Your task to perform on an android device: Set the phone to "Do not disturb". Image 0: 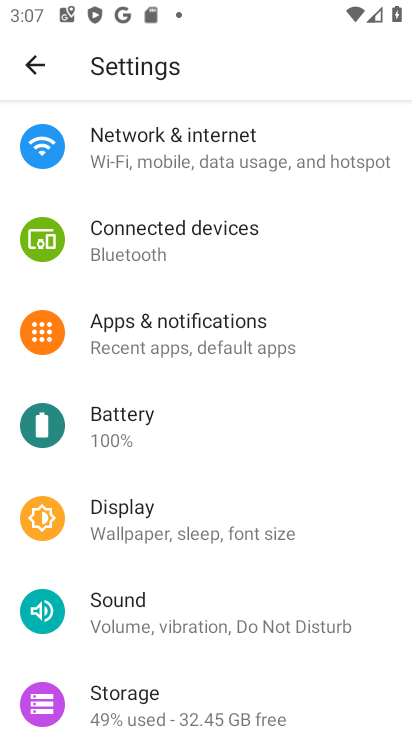
Step 0: click (256, 608)
Your task to perform on an android device: Set the phone to "Do not disturb". Image 1: 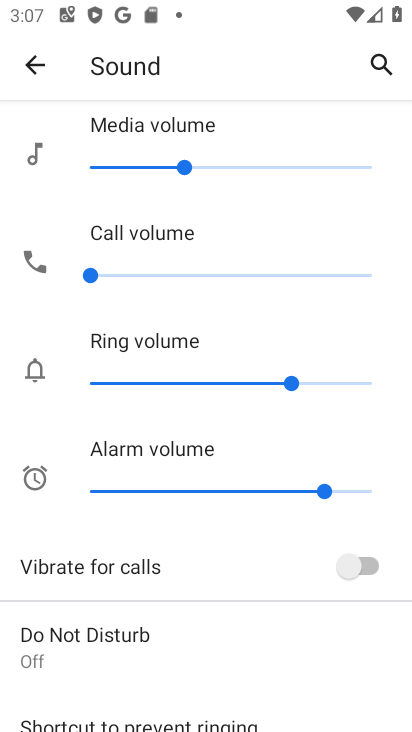
Step 1: drag from (252, 647) to (246, 127)
Your task to perform on an android device: Set the phone to "Do not disturb". Image 2: 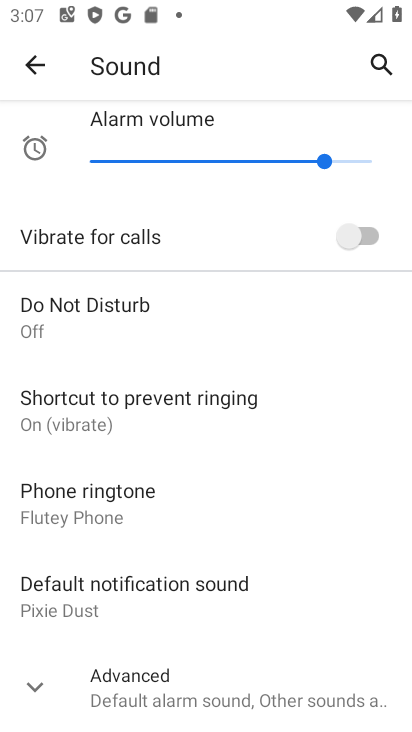
Step 2: click (66, 664)
Your task to perform on an android device: Set the phone to "Do not disturb". Image 3: 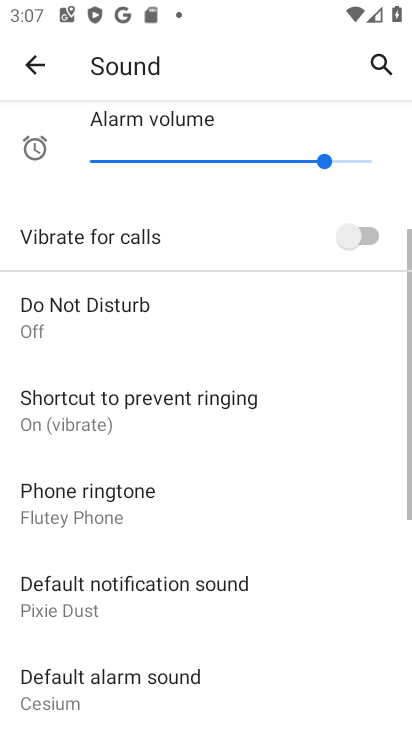
Step 3: click (160, 320)
Your task to perform on an android device: Set the phone to "Do not disturb". Image 4: 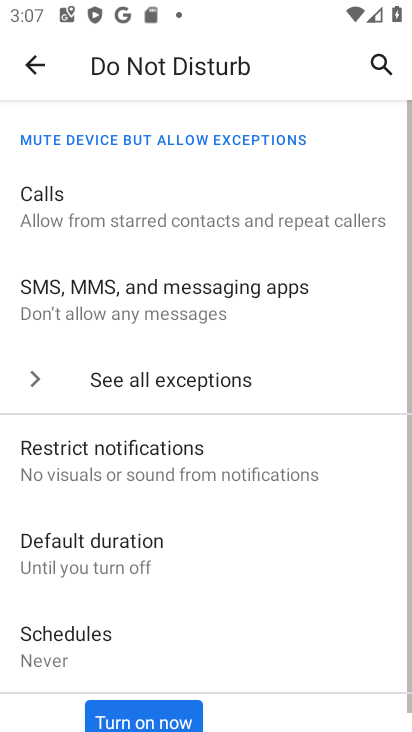
Step 4: click (130, 712)
Your task to perform on an android device: Set the phone to "Do not disturb". Image 5: 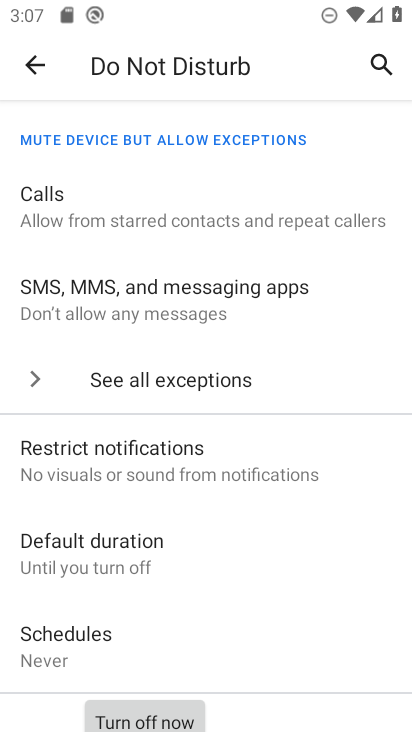
Step 5: task complete